Your task to perform on an android device: Show me popular games on the Play Store Image 0: 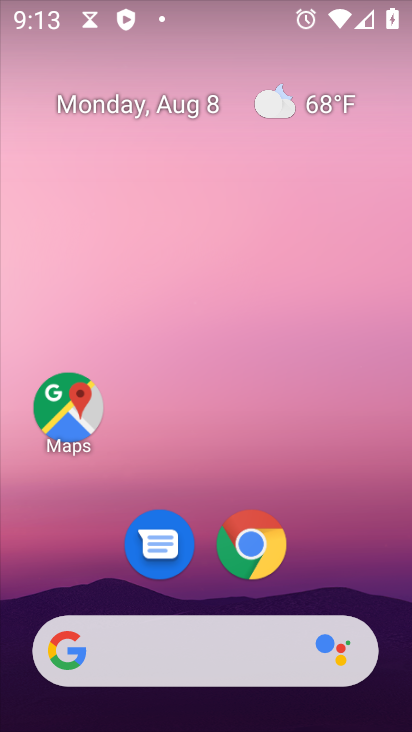
Step 0: drag from (309, 540) to (297, 113)
Your task to perform on an android device: Show me popular games on the Play Store Image 1: 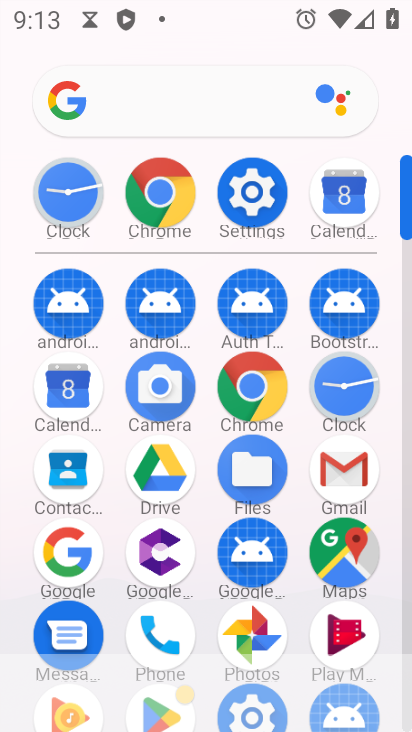
Step 1: drag from (200, 592) to (200, 166)
Your task to perform on an android device: Show me popular games on the Play Store Image 2: 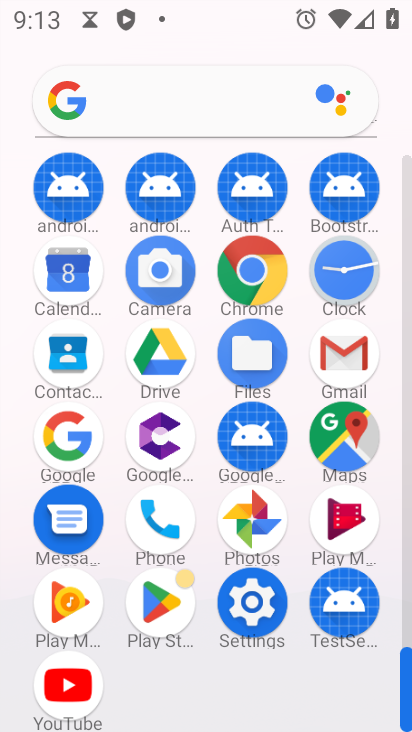
Step 2: click (154, 595)
Your task to perform on an android device: Show me popular games on the Play Store Image 3: 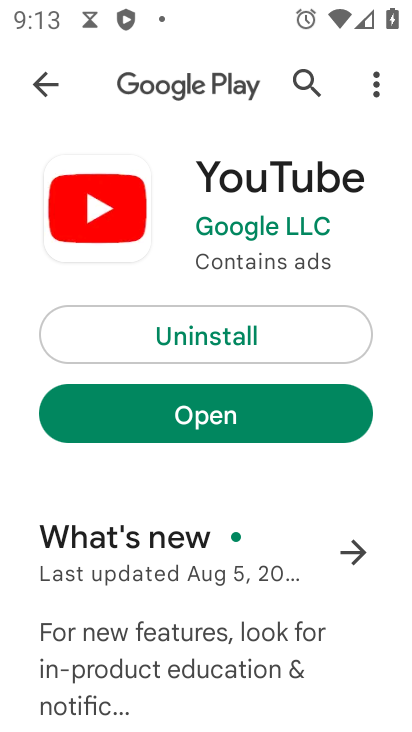
Step 3: click (40, 70)
Your task to perform on an android device: Show me popular games on the Play Store Image 4: 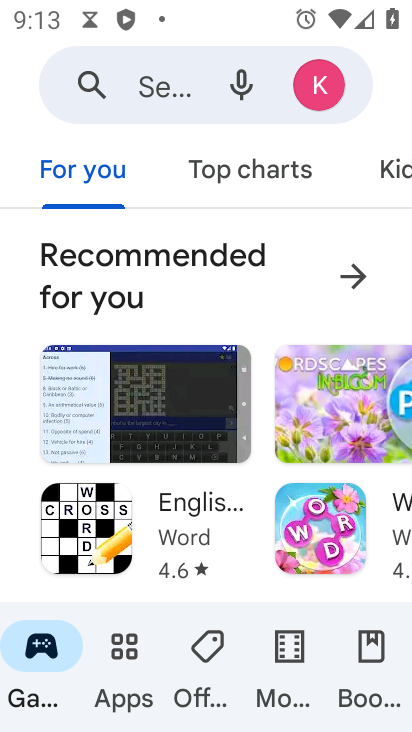
Step 4: task complete